Your task to perform on an android device: turn off notifications in google photos Image 0: 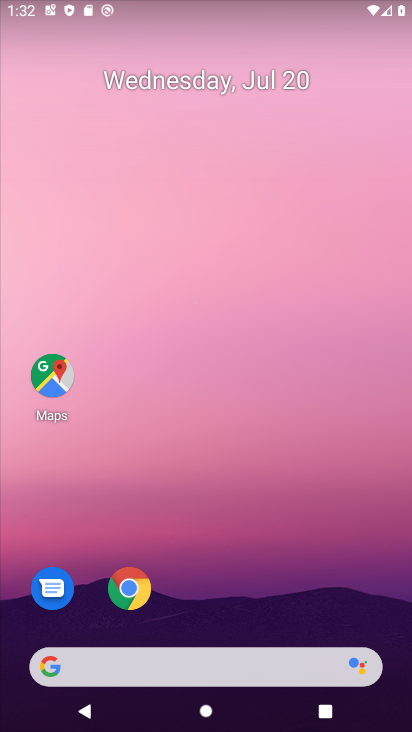
Step 0: drag from (389, 621) to (215, 0)
Your task to perform on an android device: turn off notifications in google photos Image 1: 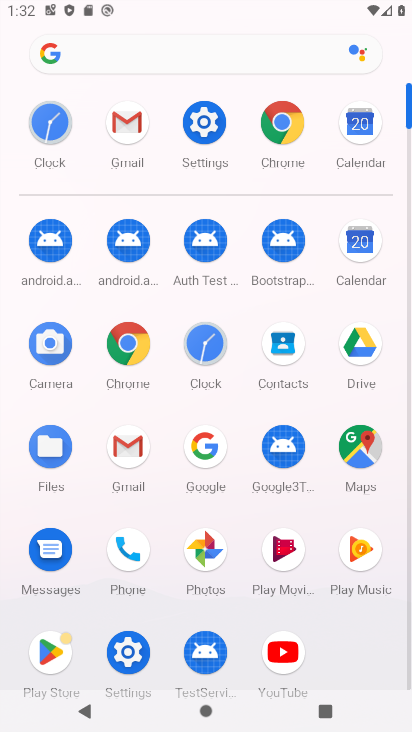
Step 1: click (195, 559)
Your task to perform on an android device: turn off notifications in google photos Image 2: 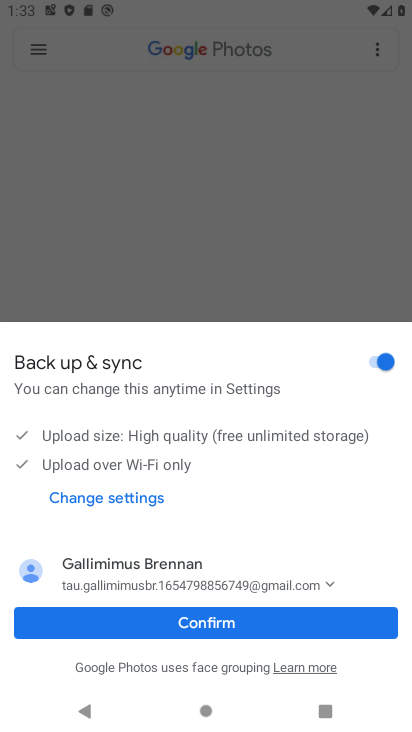
Step 2: click (213, 618)
Your task to perform on an android device: turn off notifications in google photos Image 3: 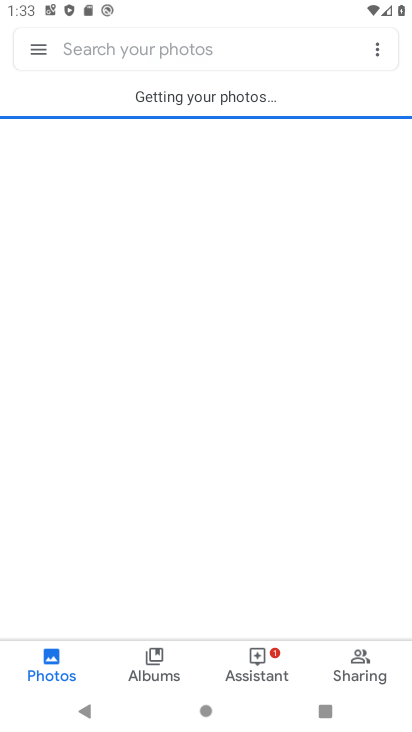
Step 3: click (31, 45)
Your task to perform on an android device: turn off notifications in google photos Image 4: 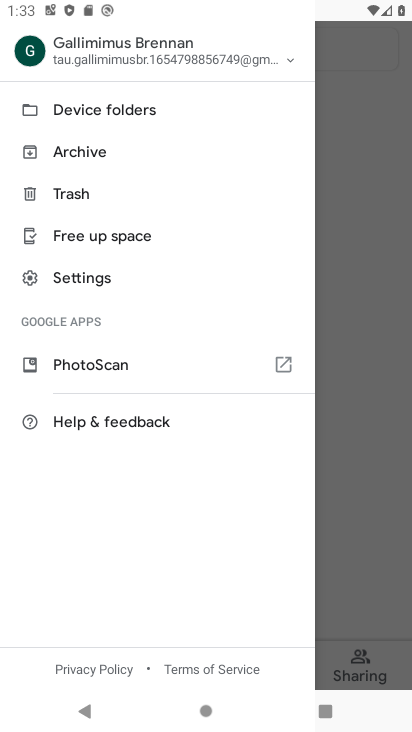
Step 4: click (76, 273)
Your task to perform on an android device: turn off notifications in google photos Image 5: 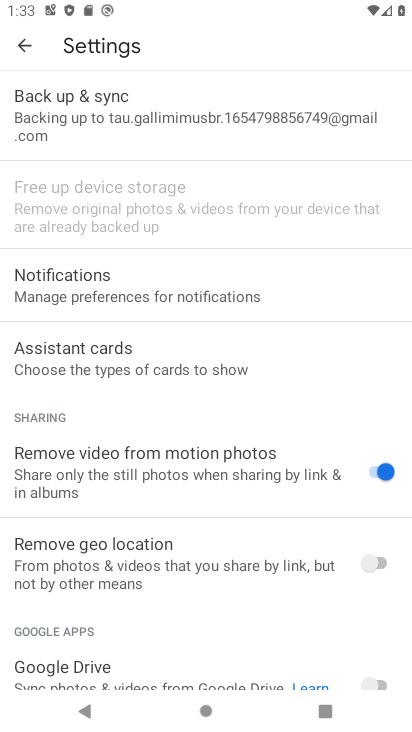
Step 5: click (114, 292)
Your task to perform on an android device: turn off notifications in google photos Image 6: 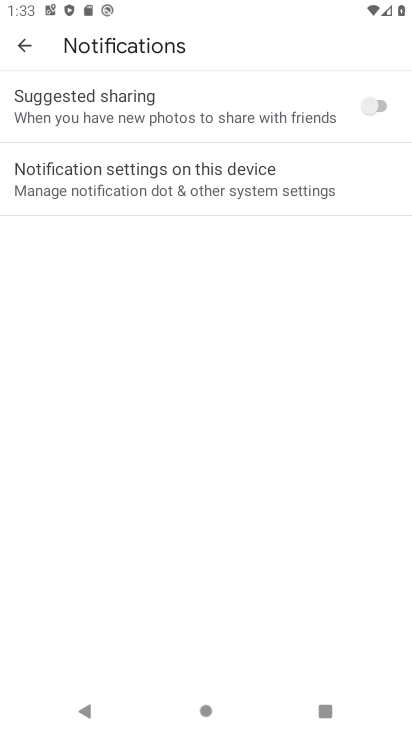
Step 6: task complete